Your task to perform on an android device: Go to Amazon Image 0: 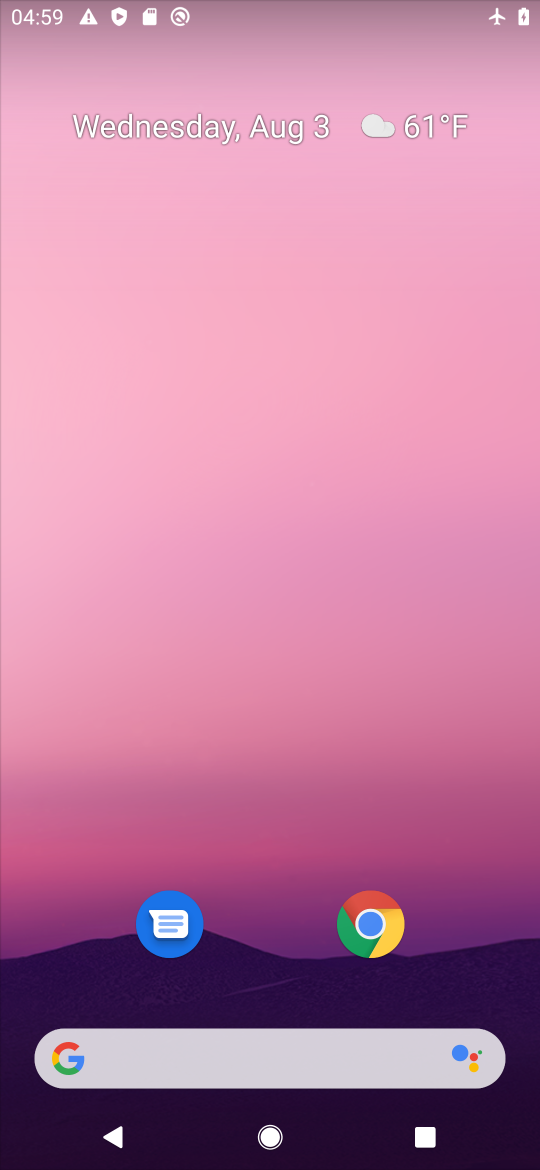
Step 0: click (387, 906)
Your task to perform on an android device: Go to Amazon Image 1: 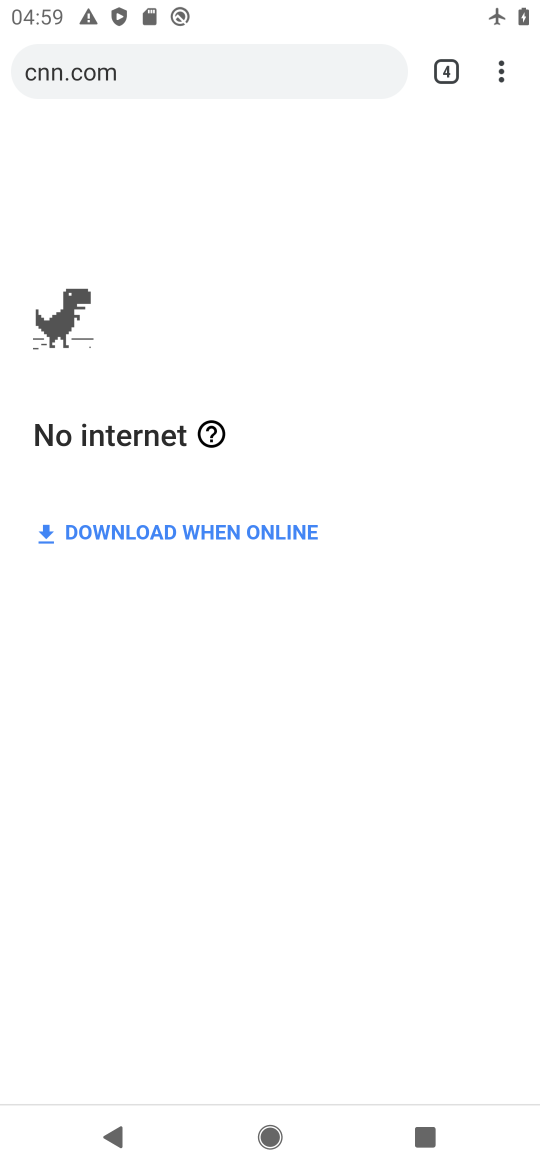
Step 1: click (435, 68)
Your task to perform on an android device: Go to Amazon Image 2: 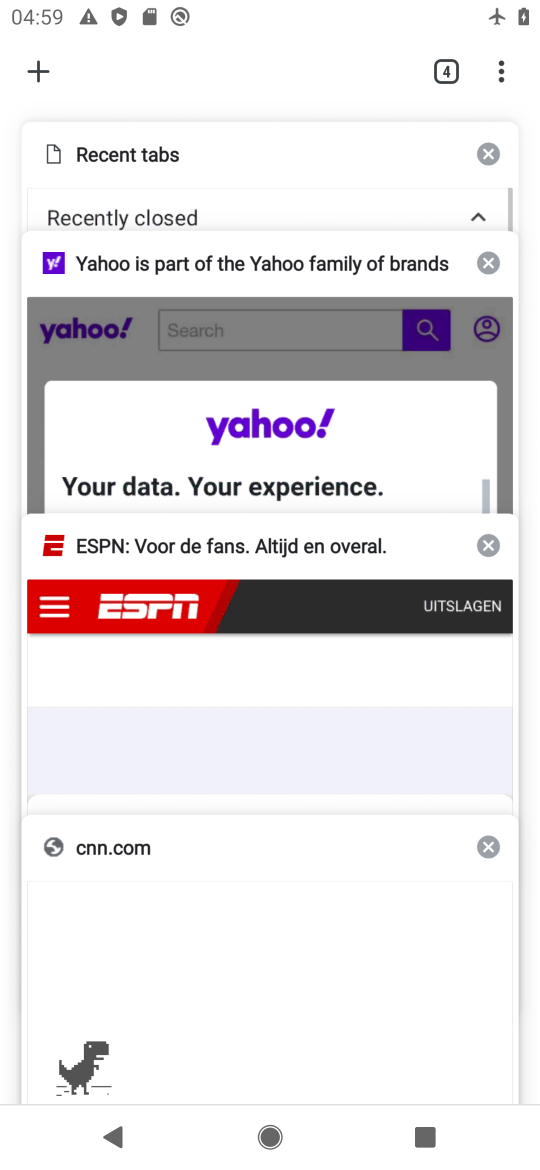
Step 2: click (45, 72)
Your task to perform on an android device: Go to Amazon Image 3: 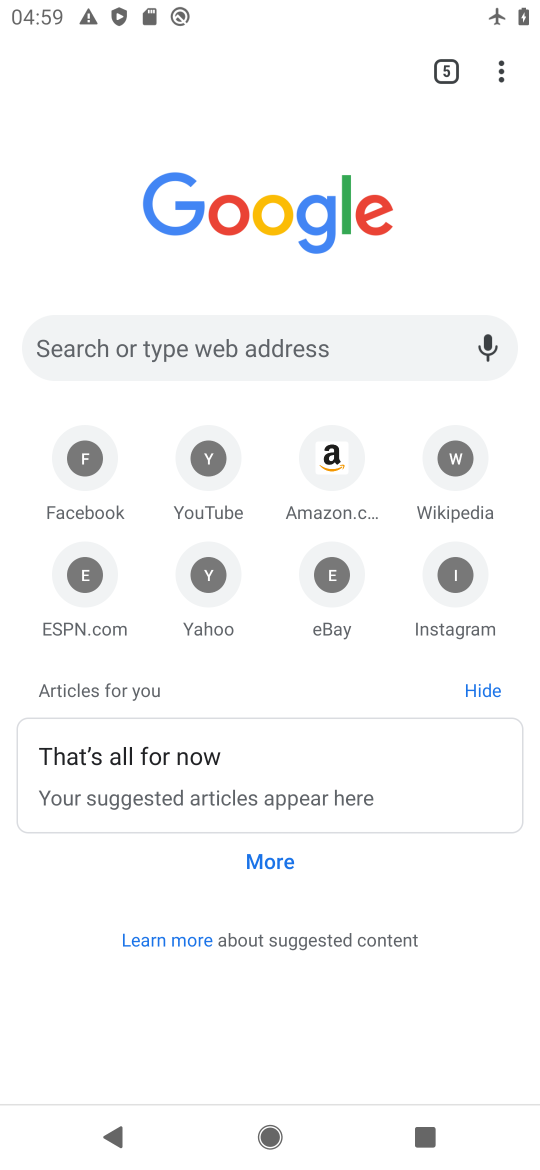
Step 3: click (352, 462)
Your task to perform on an android device: Go to Amazon Image 4: 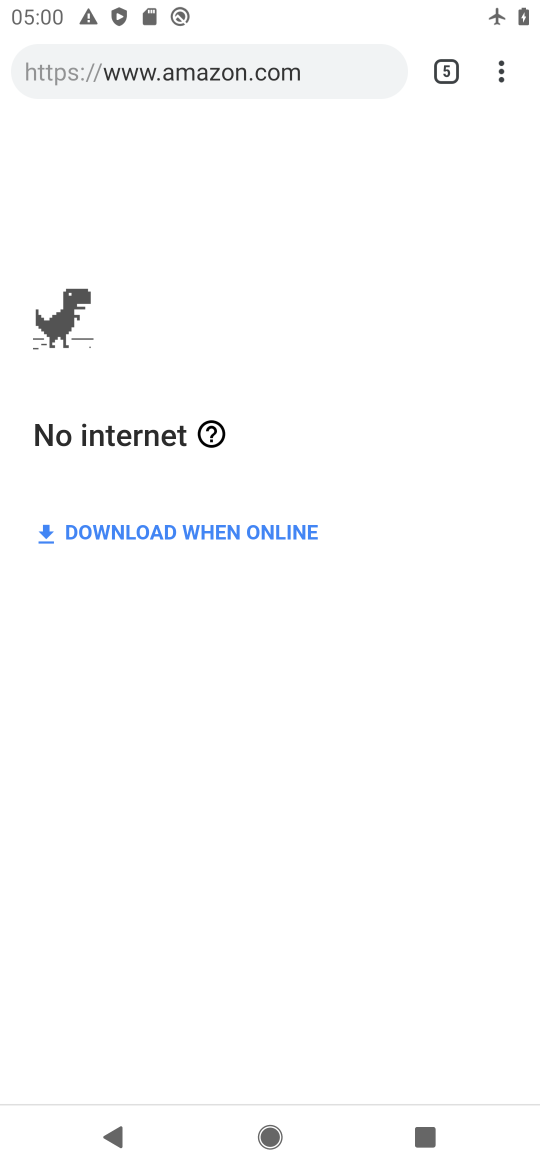
Step 4: task complete